Your task to perform on an android device: Search for seafood restaurants on Google Maps Image 0: 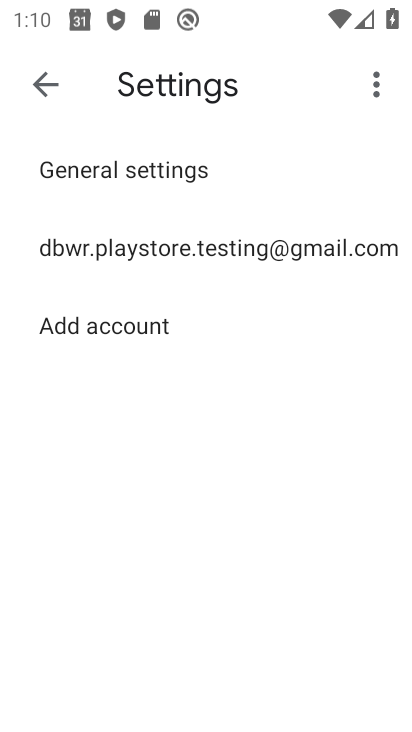
Step 0: press home button
Your task to perform on an android device: Search for seafood restaurants on Google Maps Image 1: 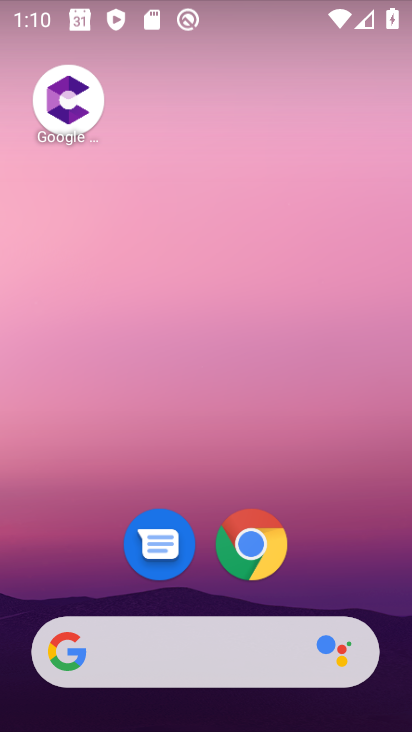
Step 1: drag from (205, 631) to (292, 151)
Your task to perform on an android device: Search for seafood restaurants on Google Maps Image 2: 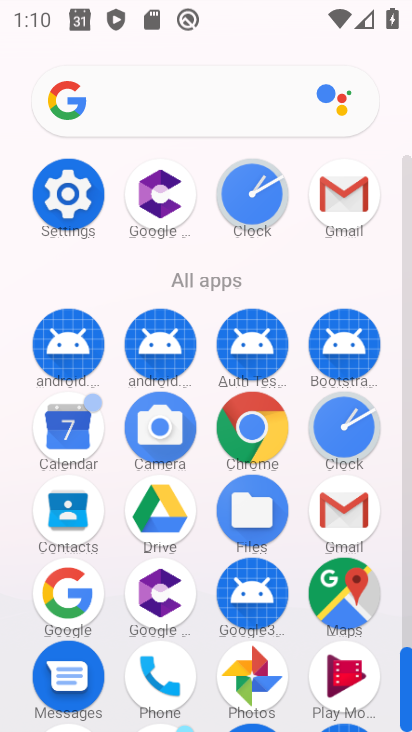
Step 2: click (337, 587)
Your task to perform on an android device: Search for seafood restaurants on Google Maps Image 3: 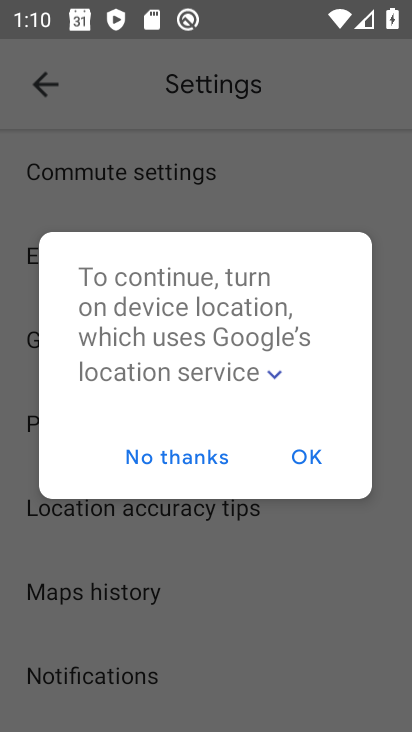
Step 3: click (308, 453)
Your task to perform on an android device: Search for seafood restaurants on Google Maps Image 4: 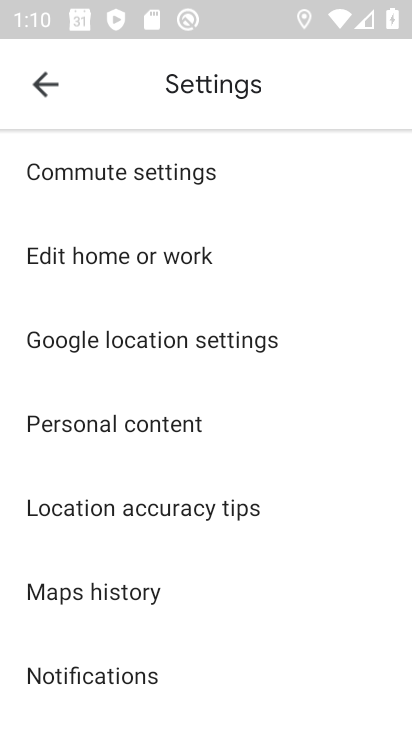
Step 4: click (33, 86)
Your task to perform on an android device: Search for seafood restaurants on Google Maps Image 5: 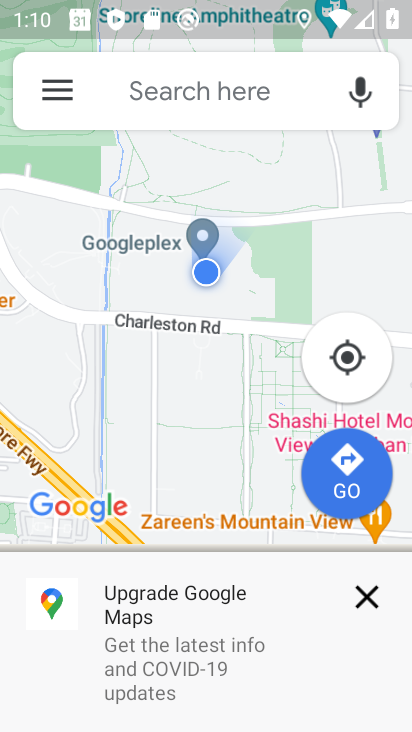
Step 5: click (177, 82)
Your task to perform on an android device: Search for seafood restaurants on Google Maps Image 6: 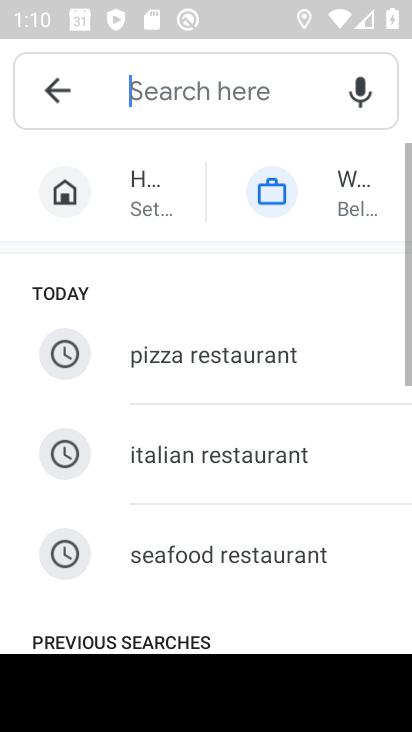
Step 6: click (237, 554)
Your task to perform on an android device: Search for seafood restaurants on Google Maps Image 7: 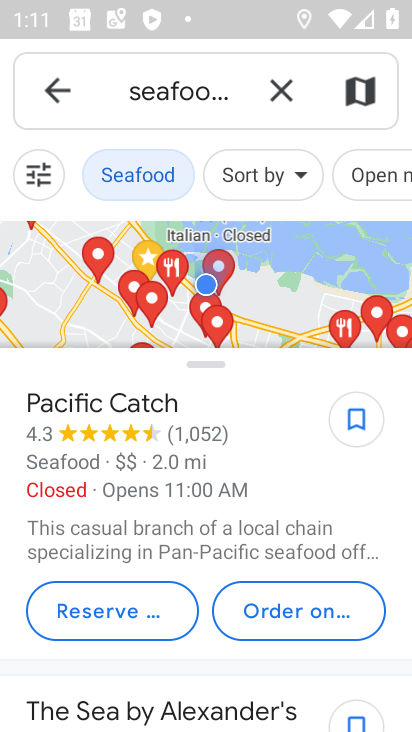
Step 7: task complete